Your task to perform on an android device: open a bookmark in the chrome app Image 0: 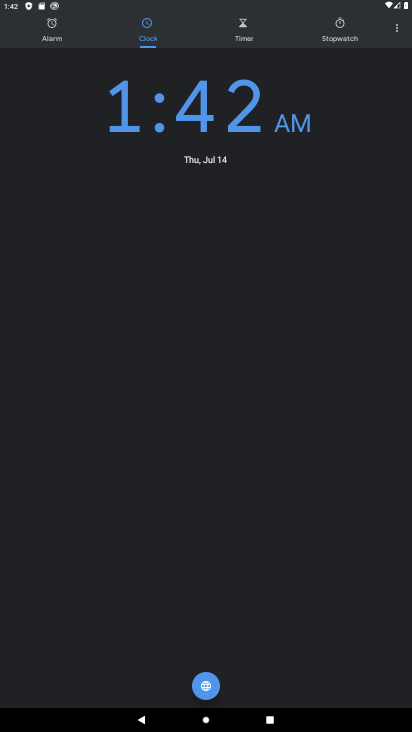
Step 0: press home button
Your task to perform on an android device: open a bookmark in the chrome app Image 1: 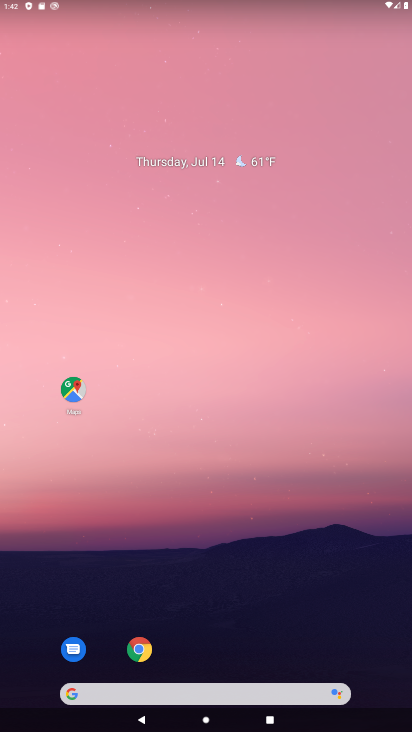
Step 1: click (137, 642)
Your task to perform on an android device: open a bookmark in the chrome app Image 2: 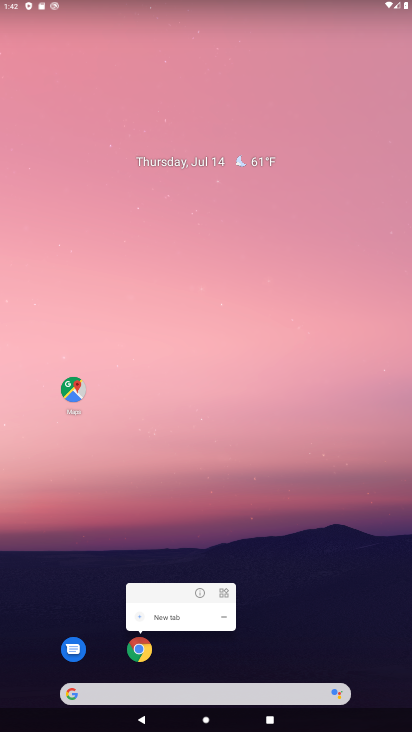
Step 2: click (138, 644)
Your task to perform on an android device: open a bookmark in the chrome app Image 3: 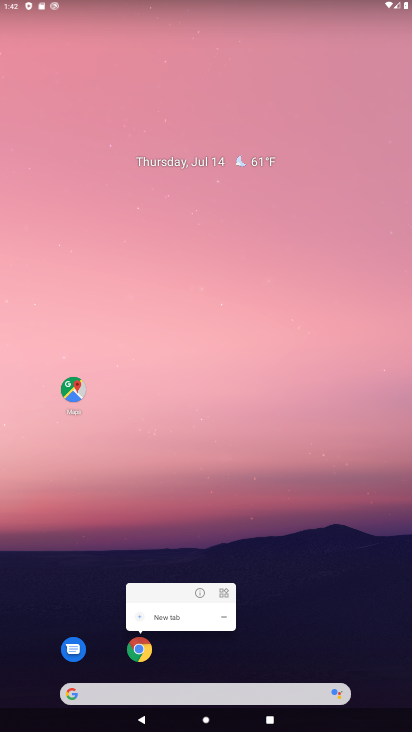
Step 3: click (138, 644)
Your task to perform on an android device: open a bookmark in the chrome app Image 4: 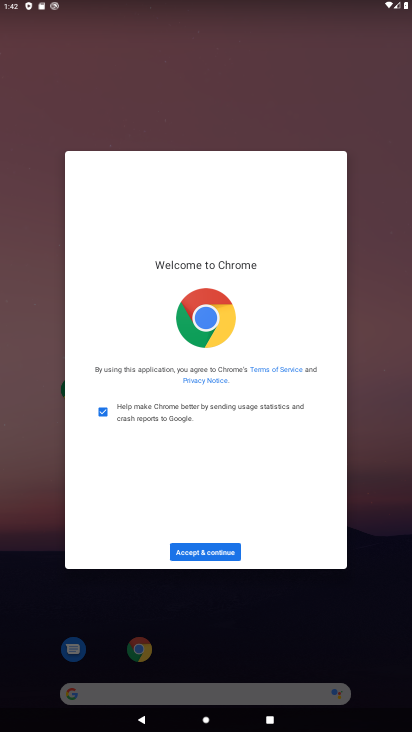
Step 4: click (202, 551)
Your task to perform on an android device: open a bookmark in the chrome app Image 5: 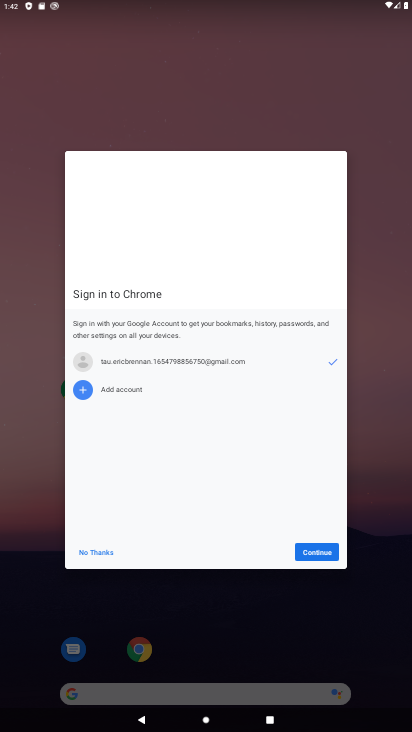
Step 5: click (308, 551)
Your task to perform on an android device: open a bookmark in the chrome app Image 6: 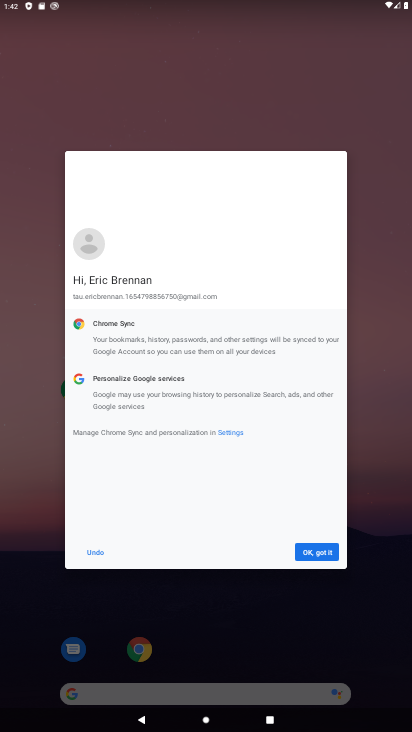
Step 6: click (313, 553)
Your task to perform on an android device: open a bookmark in the chrome app Image 7: 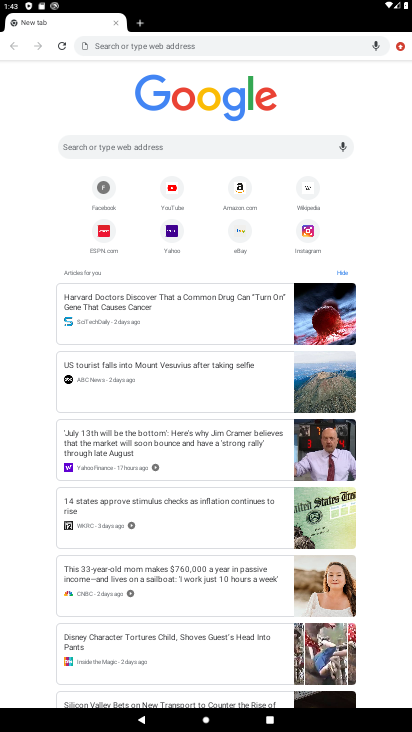
Step 7: click (401, 46)
Your task to perform on an android device: open a bookmark in the chrome app Image 8: 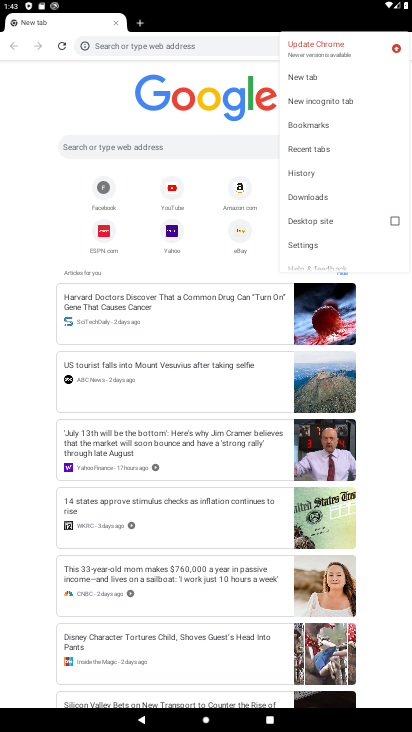
Step 8: click (318, 127)
Your task to perform on an android device: open a bookmark in the chrome app Image 9: 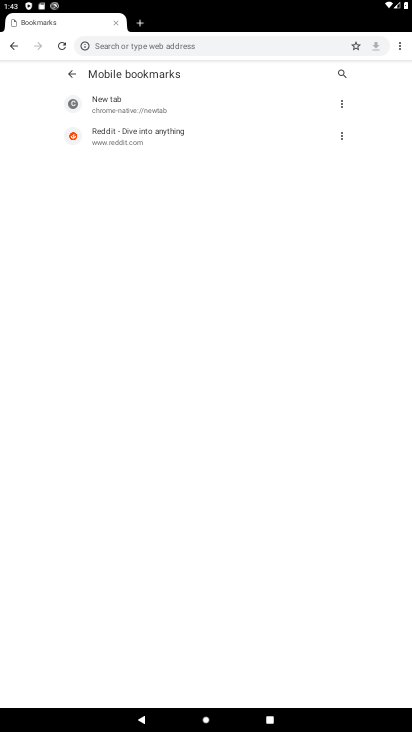
Step 9: task complete